Your task to perform on an android device: Search for pizza restaurants on Maps Image 0: 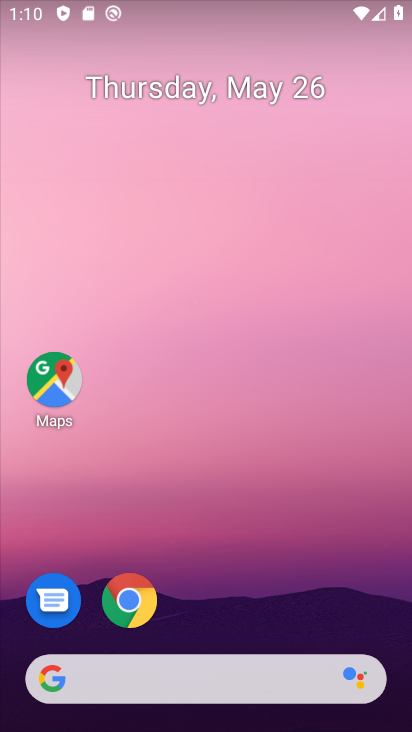
Step 0: click (58, 402)
Your task to perform on an android device: Search for pizza restaurants on Maps Image 1: 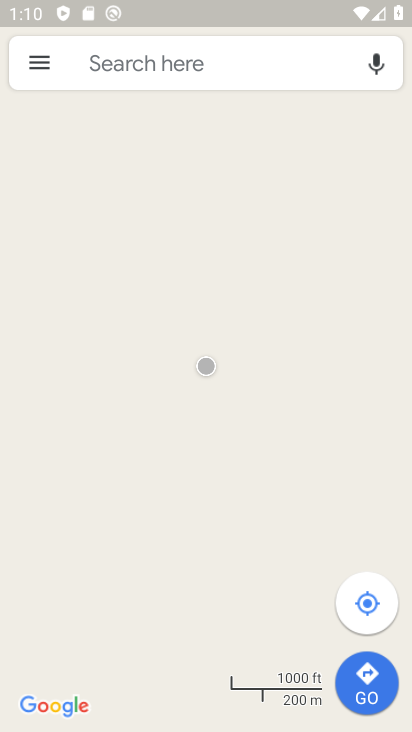
Step 1: click (210, 60)
Your task to perform on an android device: Search for pizza restaurants on Maps Image 2: 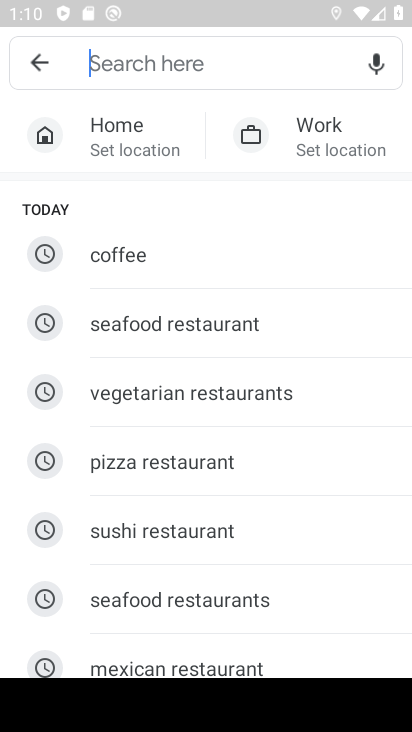
Step 2: type "pizza"
Your task to perform on an android device: Search for pizza restaurants on Maps Image 3: 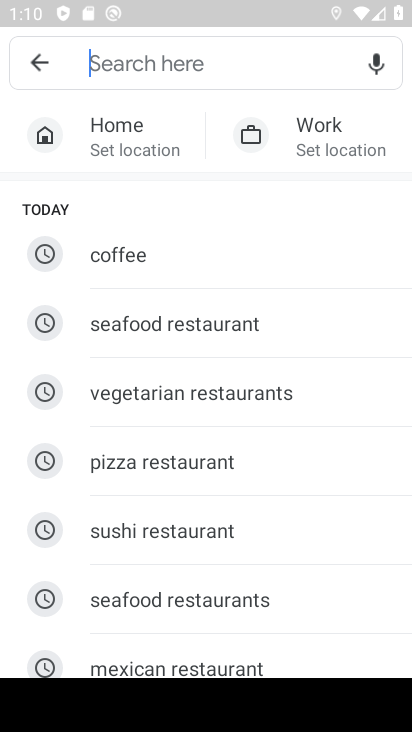
Step 3: click (132, 451)
Your task to perform on an android device: Search for pizza restaurants on Maps Image 4: 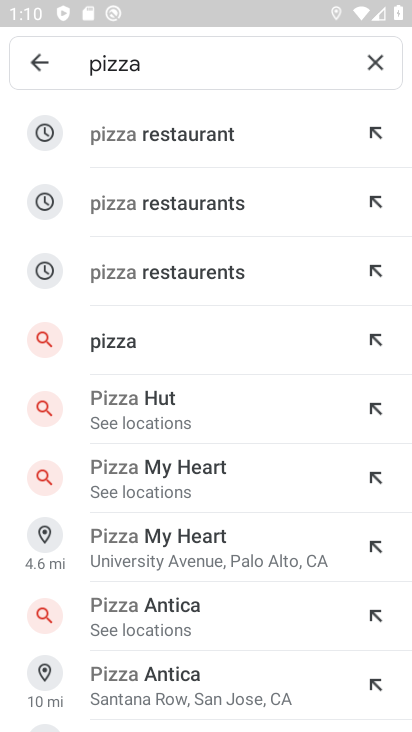
Step 4: click (256, 150)
Your task to perform on an android device: Search for pizza restaurants on Maps Image 5: 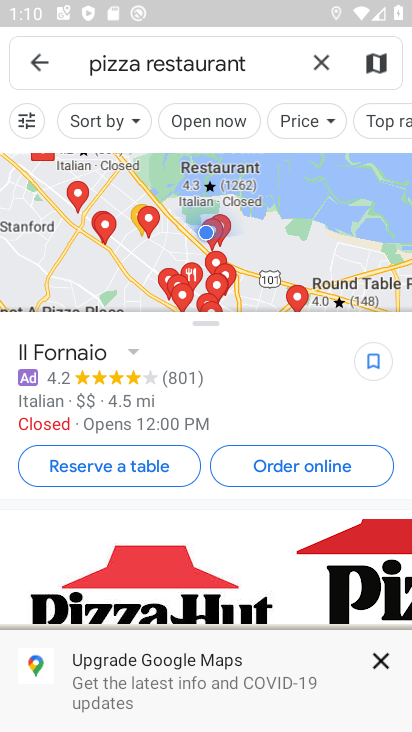
Step 5: task complete